Your task to perform on an android device: Open sound settings Image 0: 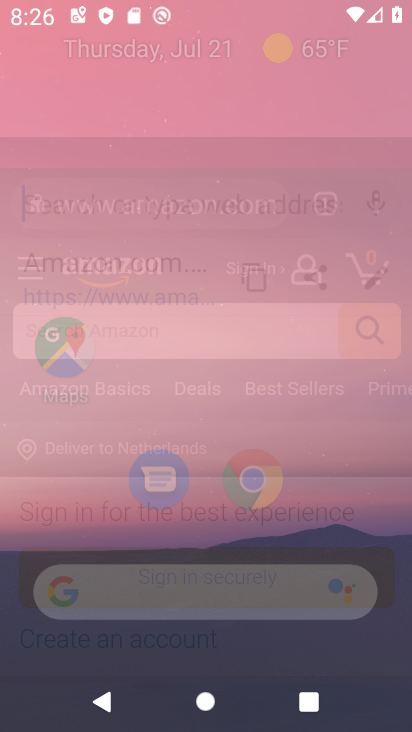
Step 0: type "weather"
Your task to perform on an android device: Open sound settings Image 1: 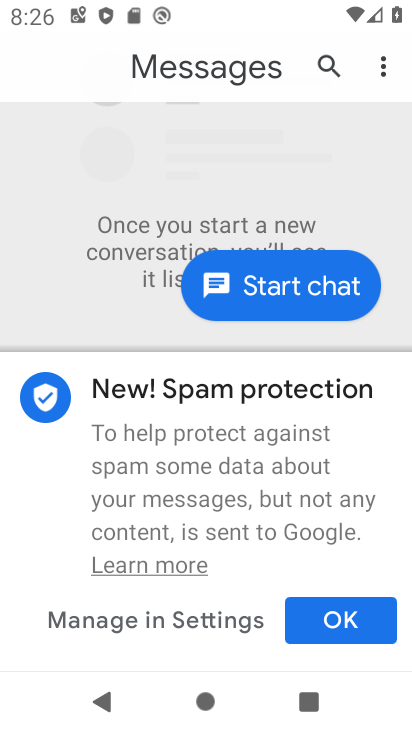
Step 1: press home button
Your task to perform on an android device: Open sound settings Image 2: 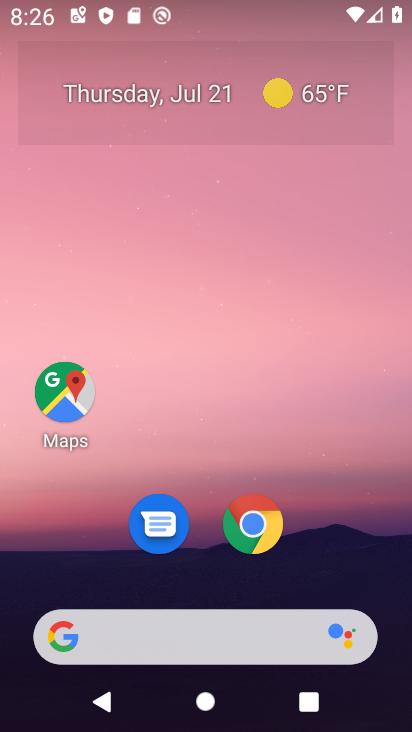
Step 2: drag from (224, 633) to (240, 44)
Your task to perform on an android device: Open sound settings Image 3: 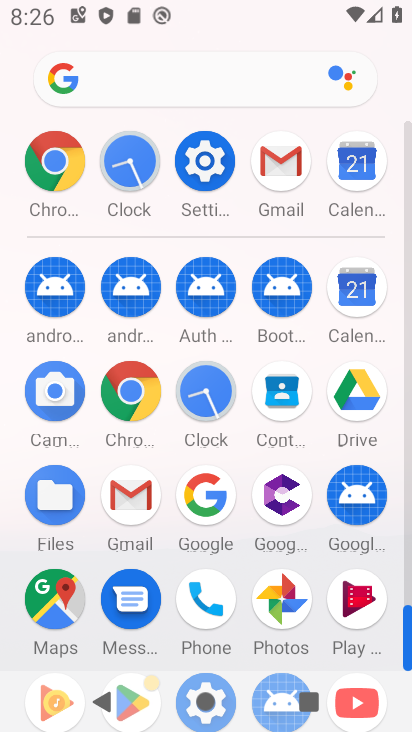
Step 3: click (192, 190)
Your task to perform on an android device: Open sound settings Image 4: 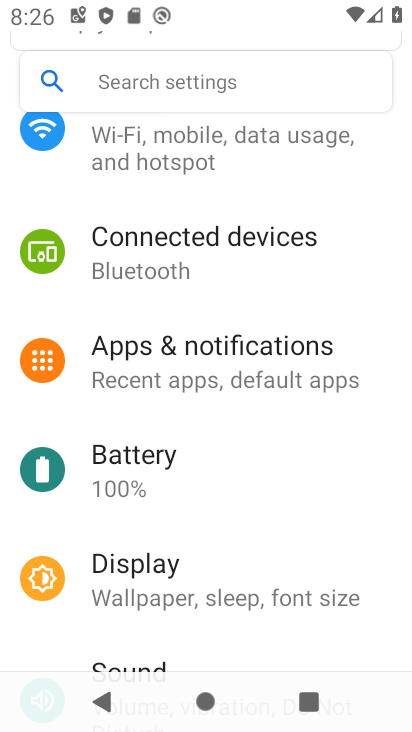
Step 4: click (140, 661)
Your task to perform on an android device: Open sound settings Image 5: 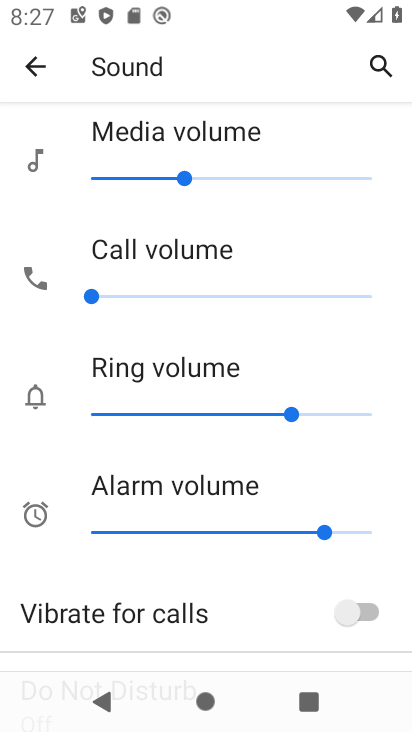
Step 5: task complete